Your task to perform on an android device: change the upload size in google photos Image 0: 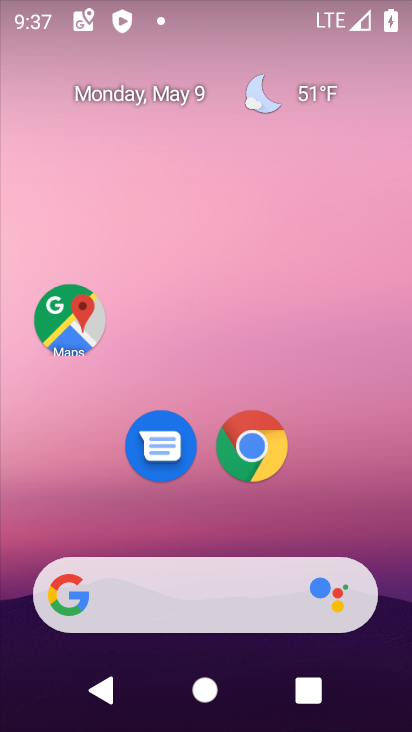
Step 0: drag from (303, 502) to (298, 56)
Your task to perform on an android device: change the upload size in google photos Image 1: 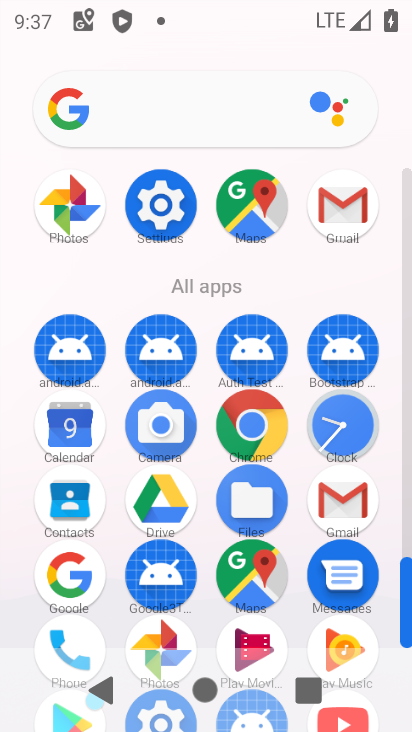
Step 1: click (171, 633)
Your task to perform on an android device: change the upload size in google photos Image 2: 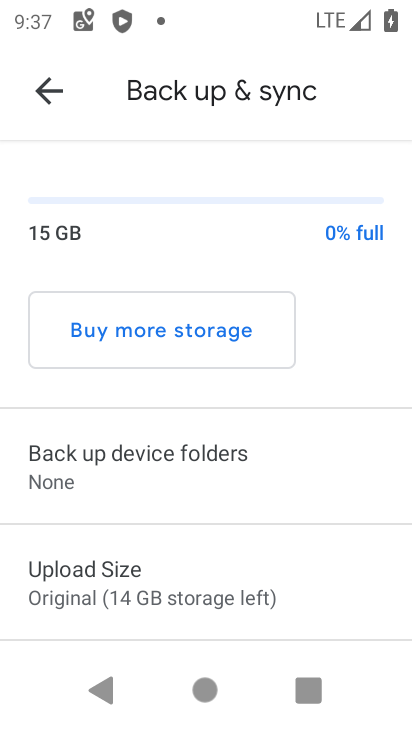
Step 2: click (201, 589)
Your task to perform on an android device: change the upload size in google photos Image 3: 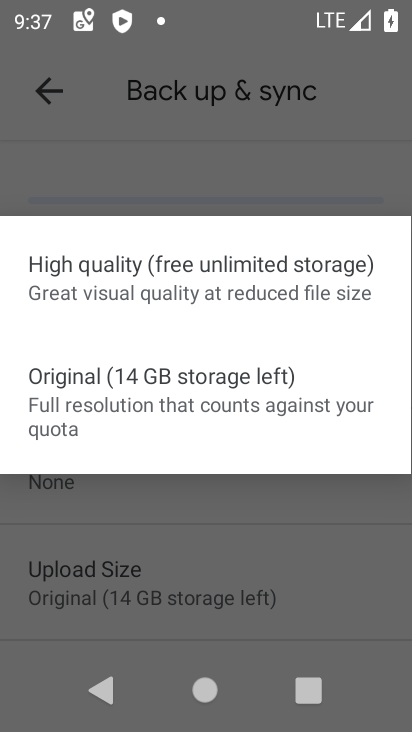
Step 3: click (188, 288)
Your task to perform on an android device: change the upload size in google photos Image 4: 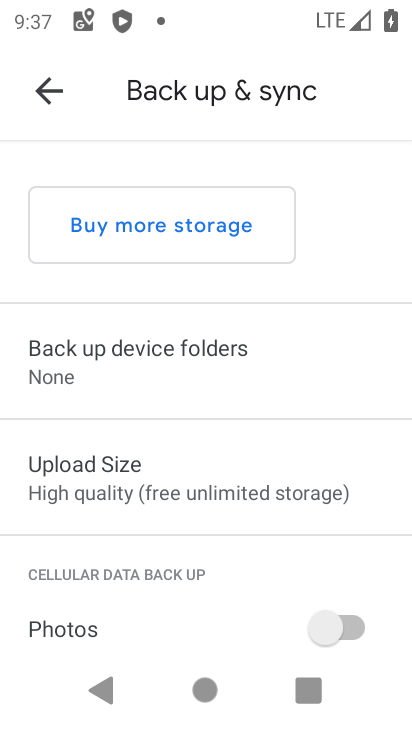
Step 4: task complete